Your task to perform on an android device: open app "Speedtest by Ookla" (install if not already installed) Image 0: 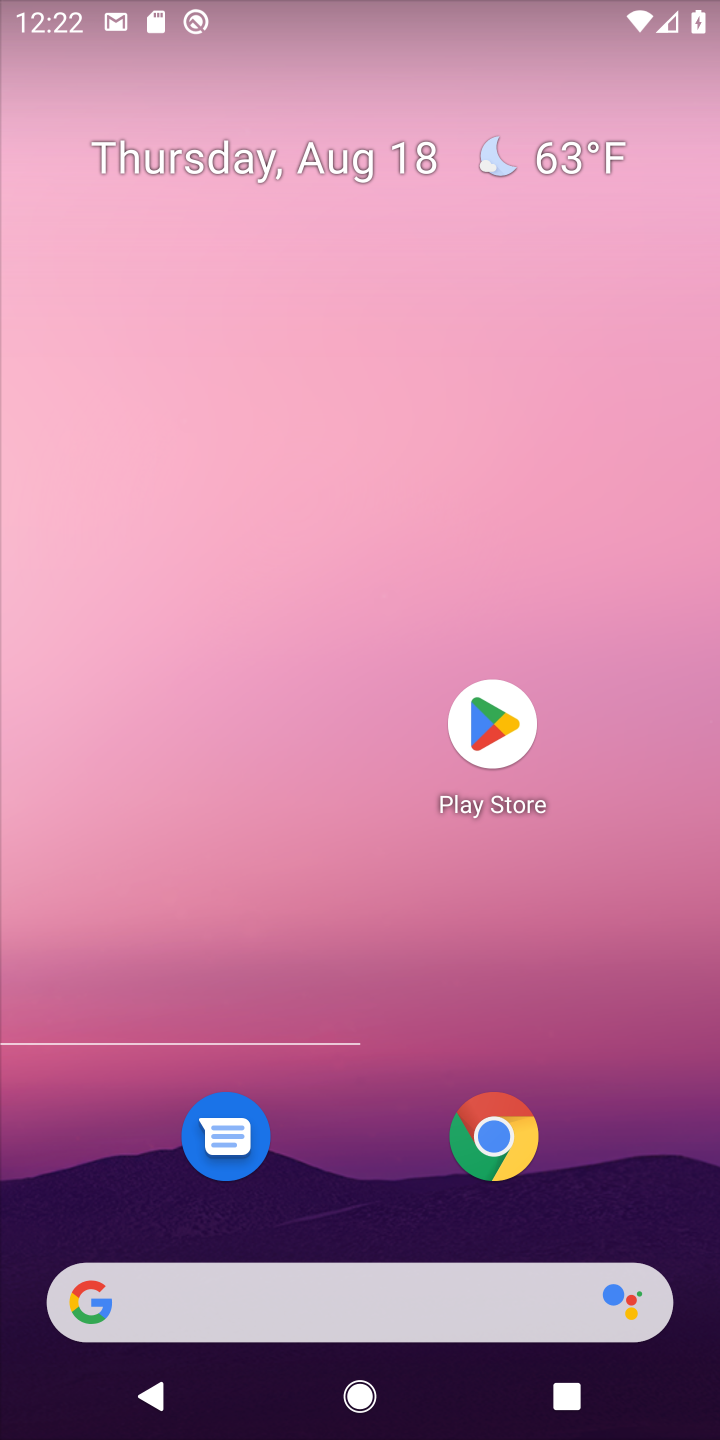
Step 0: press home button
Your task to perform on an android device: open app "Speedtest by Ookla" (install if not already installed) Image 1: 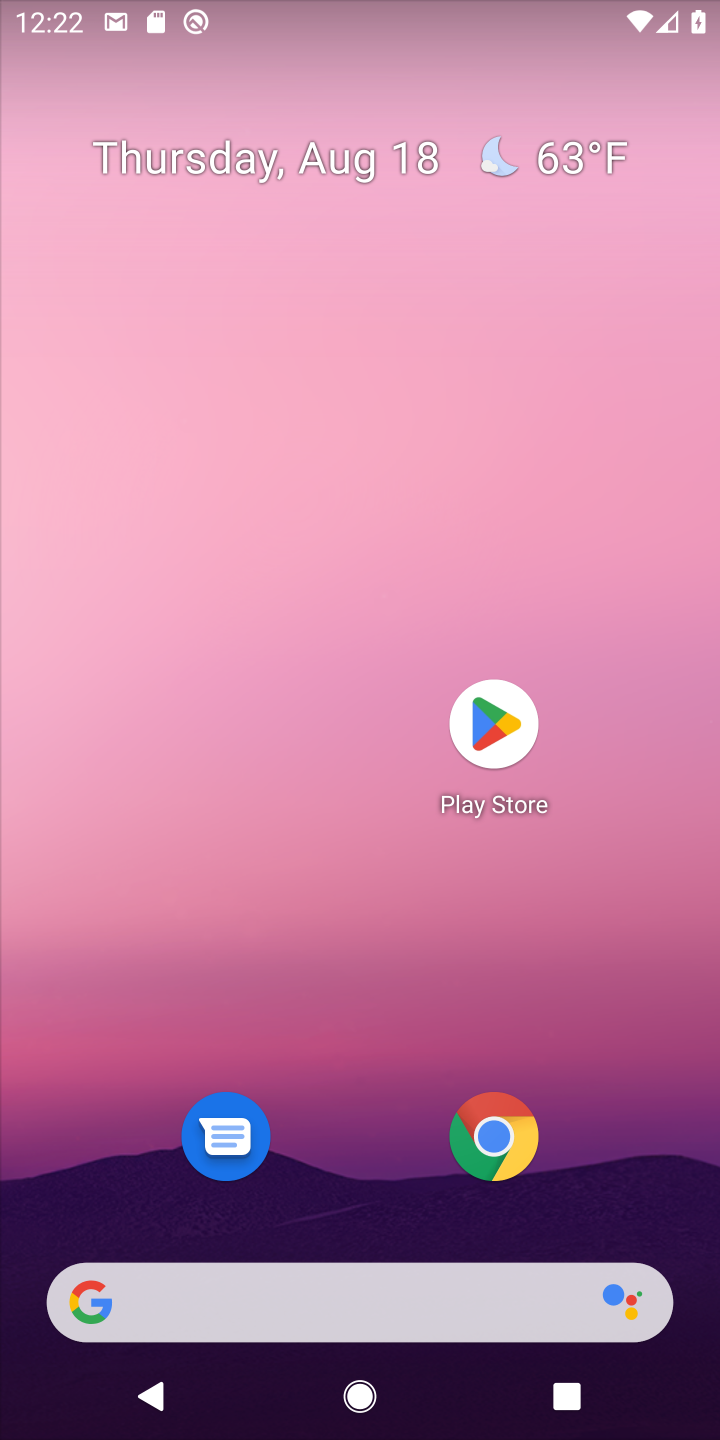
Step 1: press home button
Your task to perform on an android device: open app "Speedtest by Ookla" (install if not already installed) Image 2: 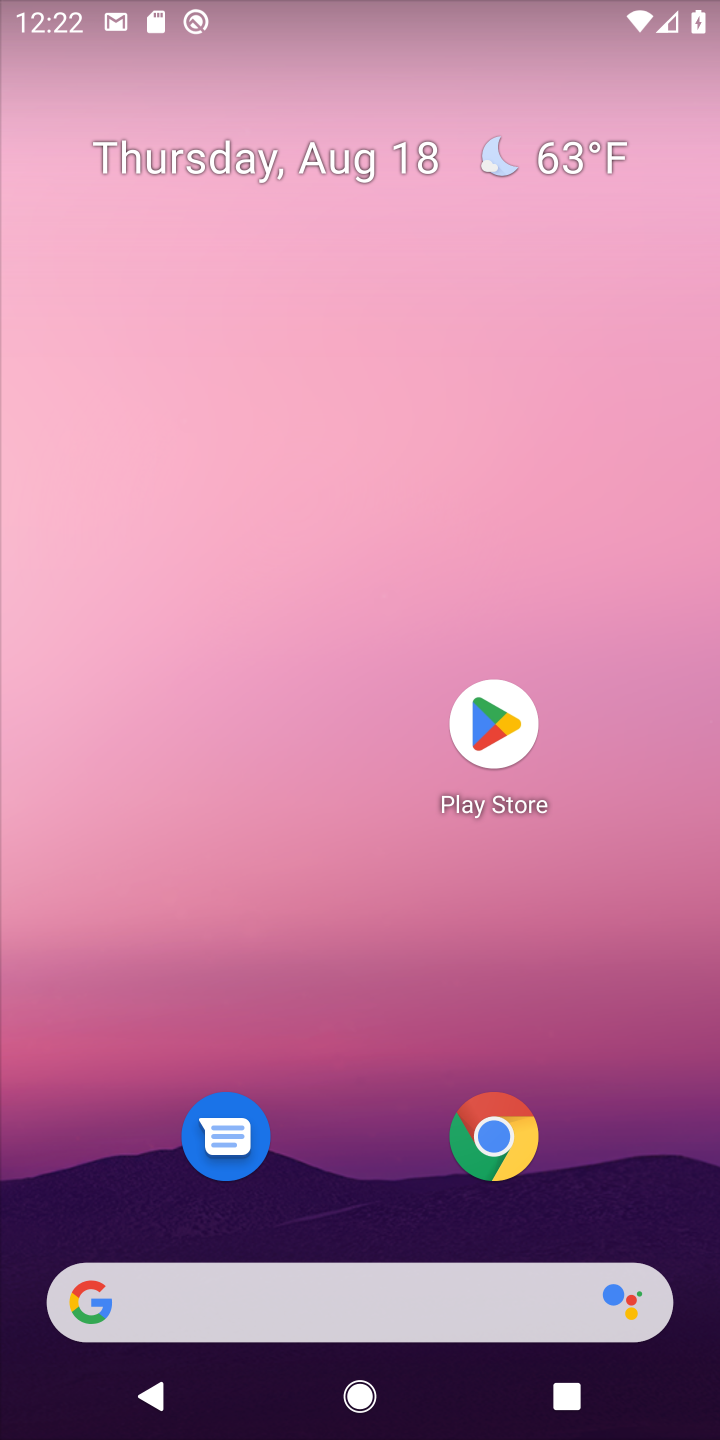
Step 2: click (480, 731)
Your task to perform on an android device: open app "Speedtest by Ookla" (install if not already installed) Image 3: 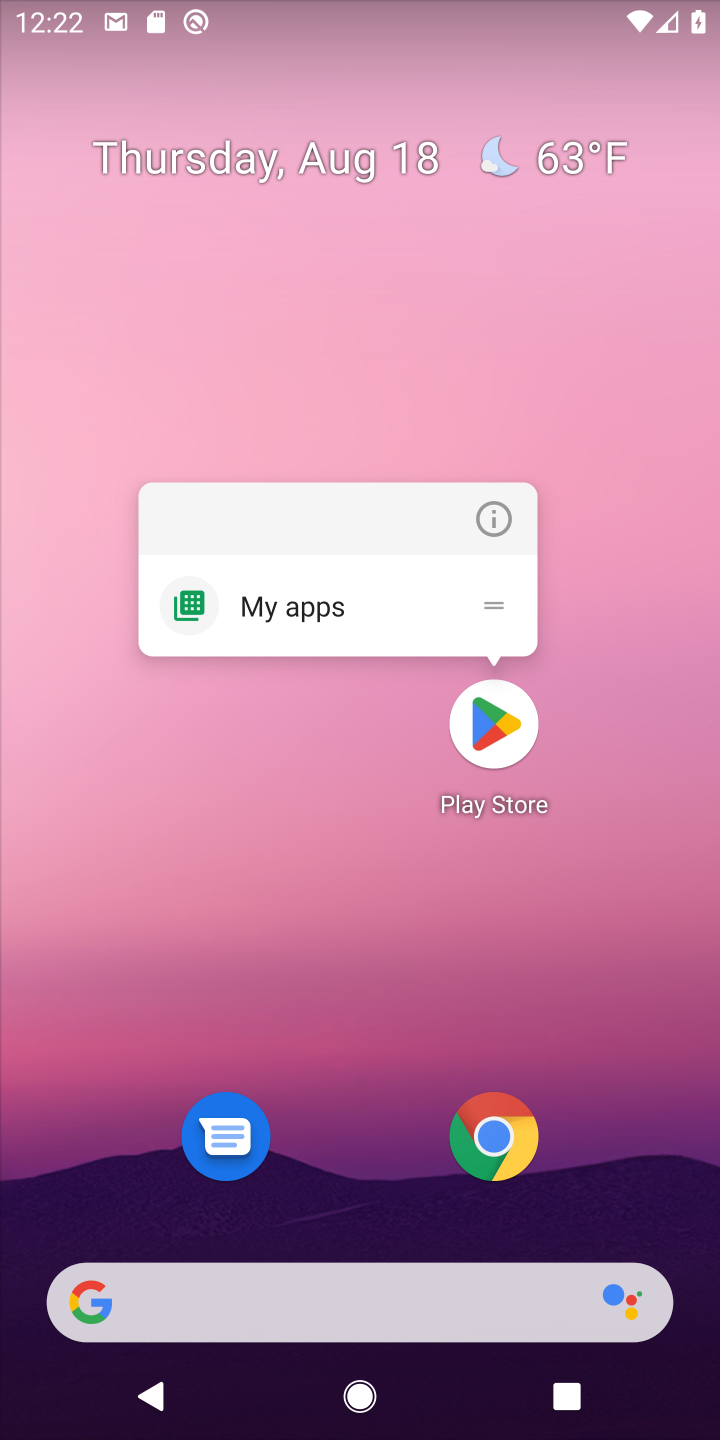
Step 3: click (480, 735)
Your task to perform on an android device: open app "Speedtest by Ookla" (install if not already installed) Image 4: 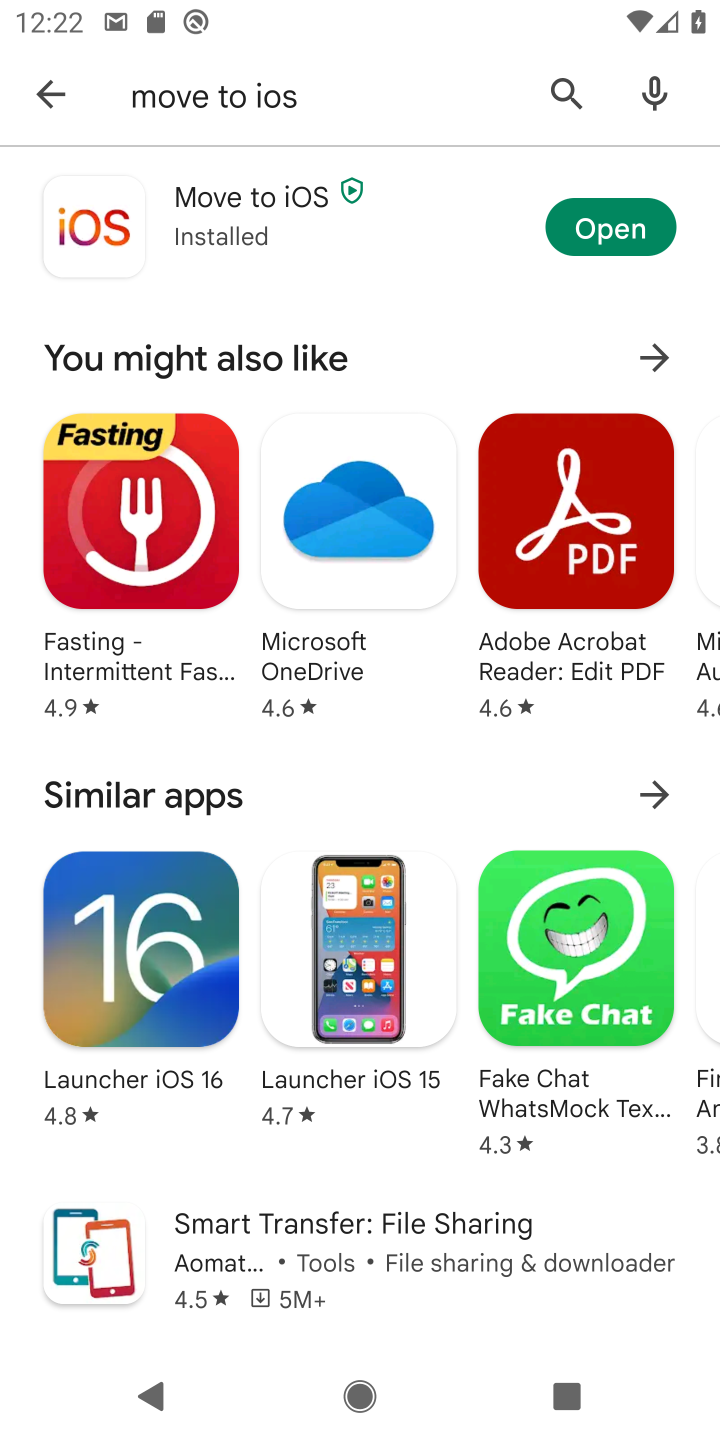
Step 4: click (562, 81)
Your task to perform on an android device: open app "Speedtest by Ookla" (install if not already installed) Image 5: 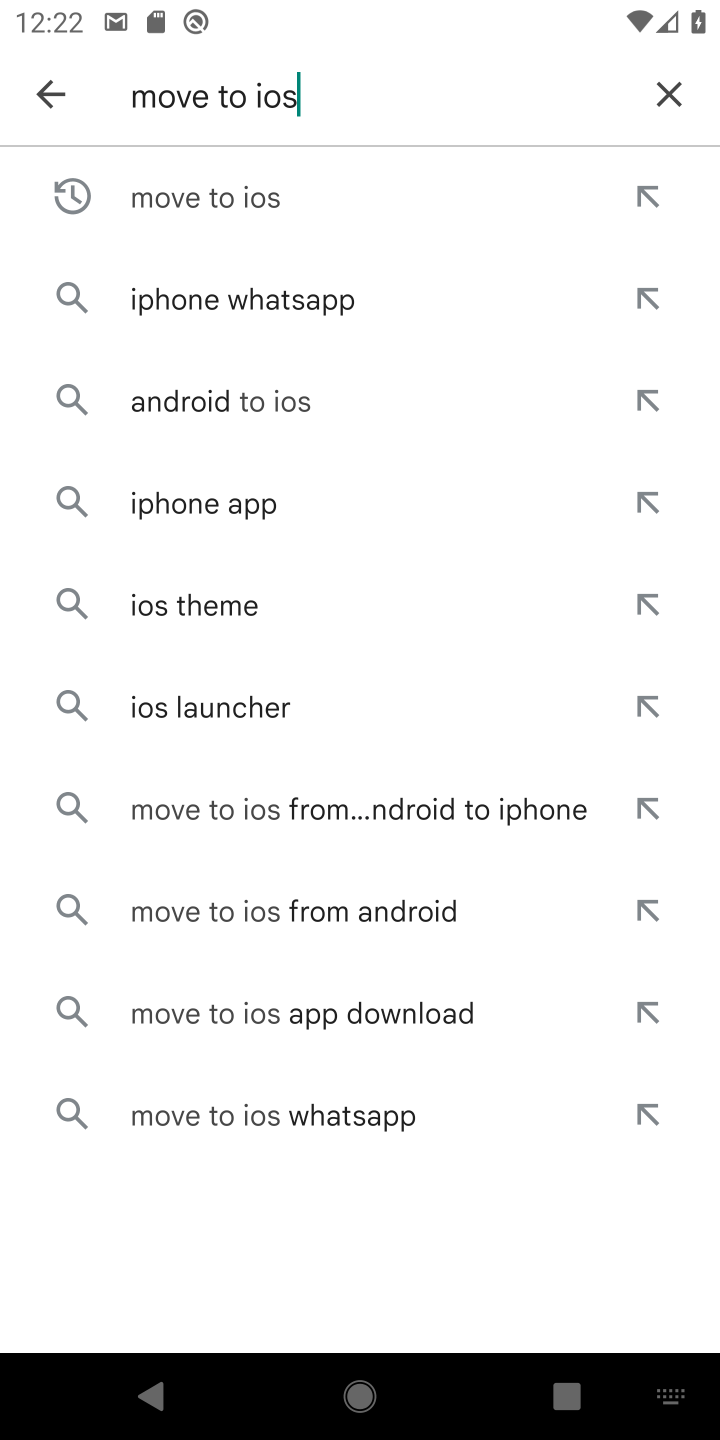
Step 5: click (668, 90)
Your task to perform on an android device: open app "Speedtest by Ookla" (install if not already installed) Image 6: 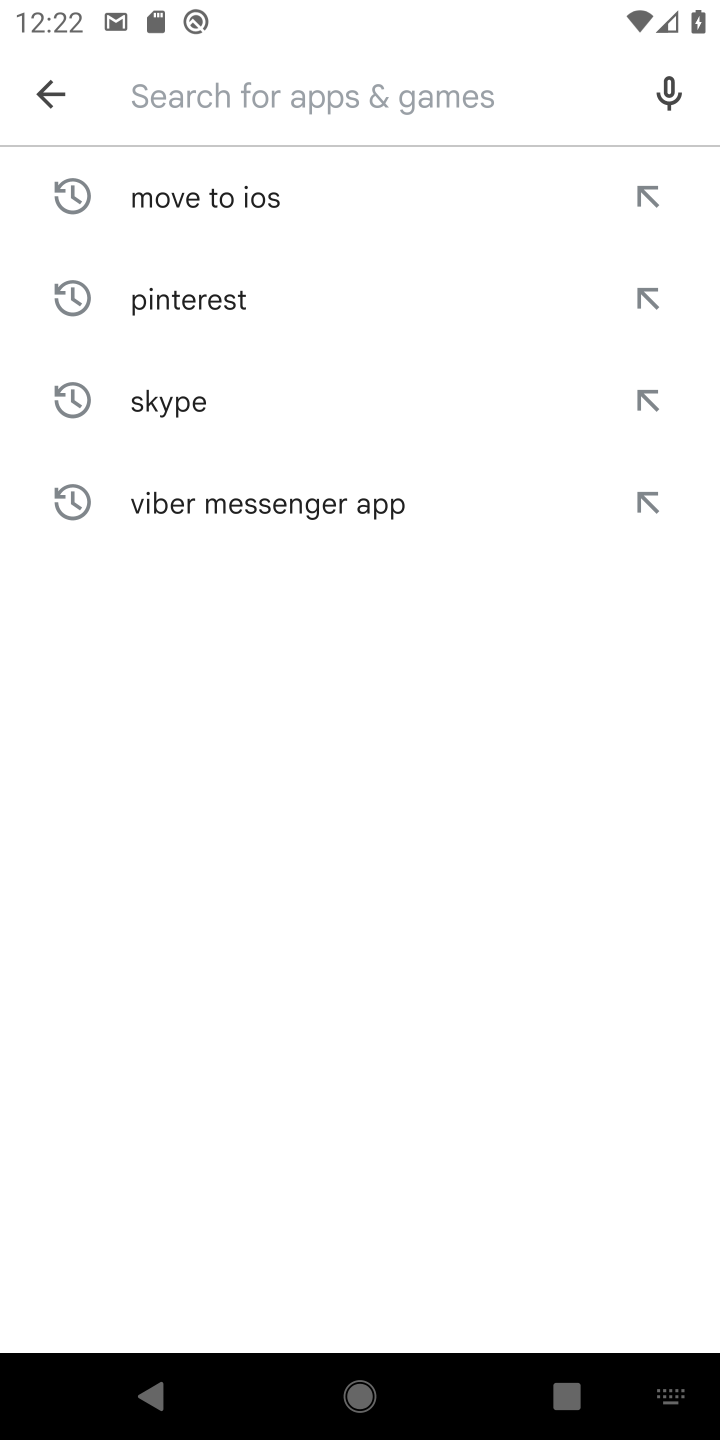
Step 6: type "Speedtest by Ookla"
Your task to perform on an android device: open app "Speedtest by Ookla" (install if not already installed) Image 7: 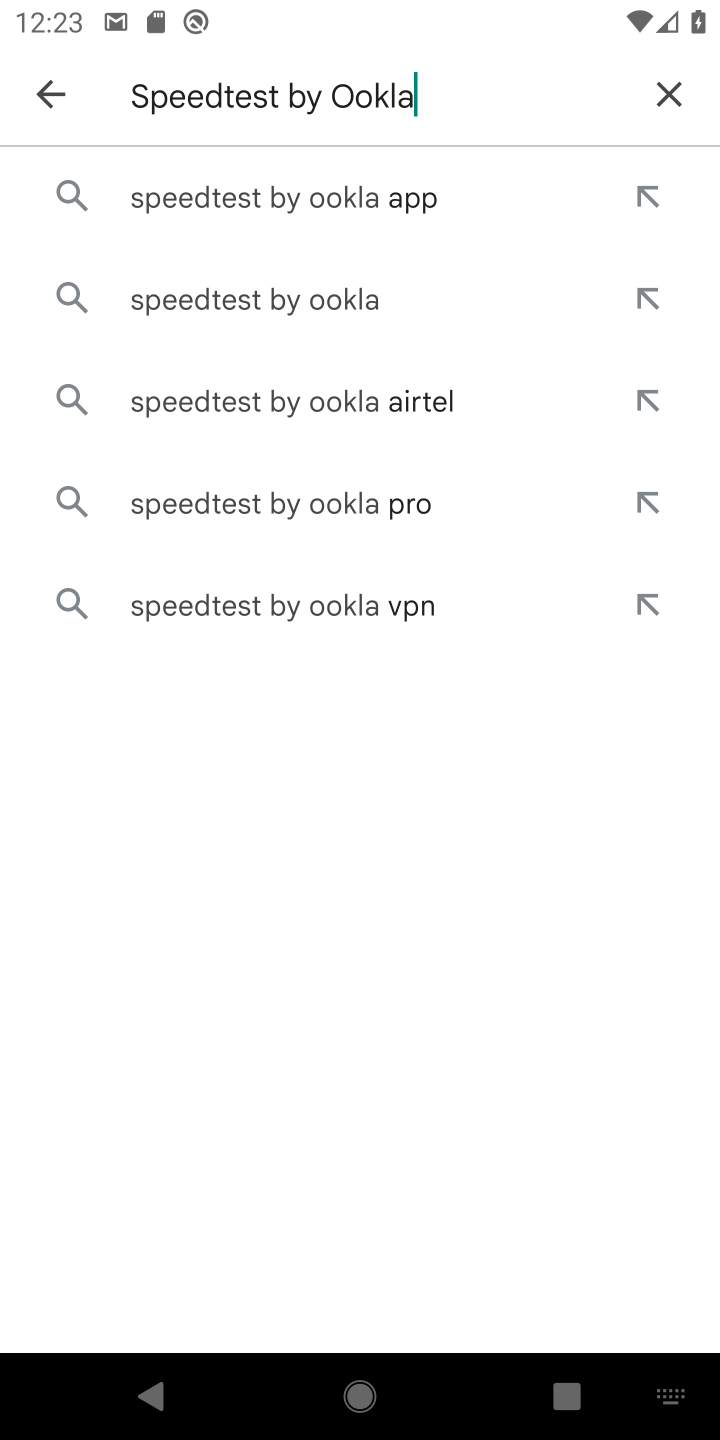
Step 7: click (374, 194)
Your task to perform on an android device: open app "Speedtest by Ookla" (install if not already installed) Image 8: 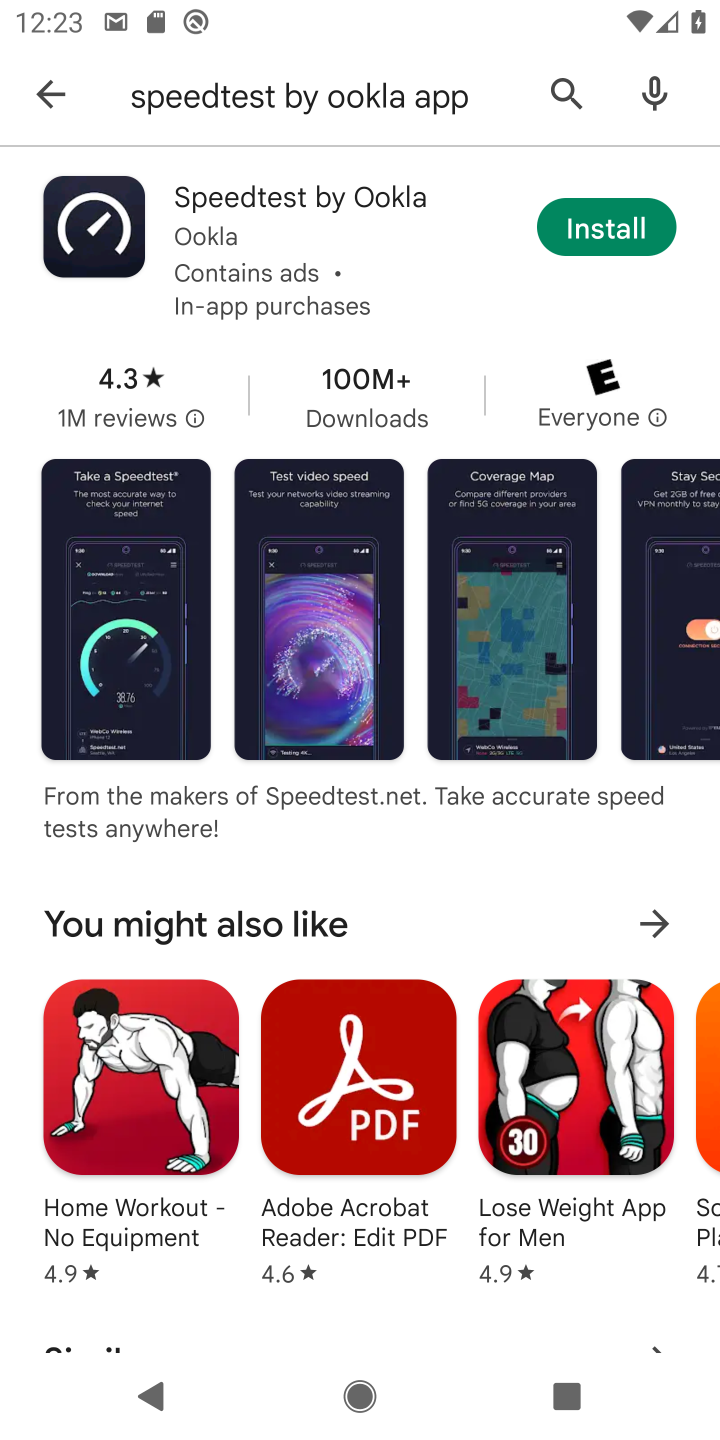
Step 8: click (598, 232)
Your task to perform on an android device: open app "Speedtest by Ookla" (install if not already installed) Image 9: 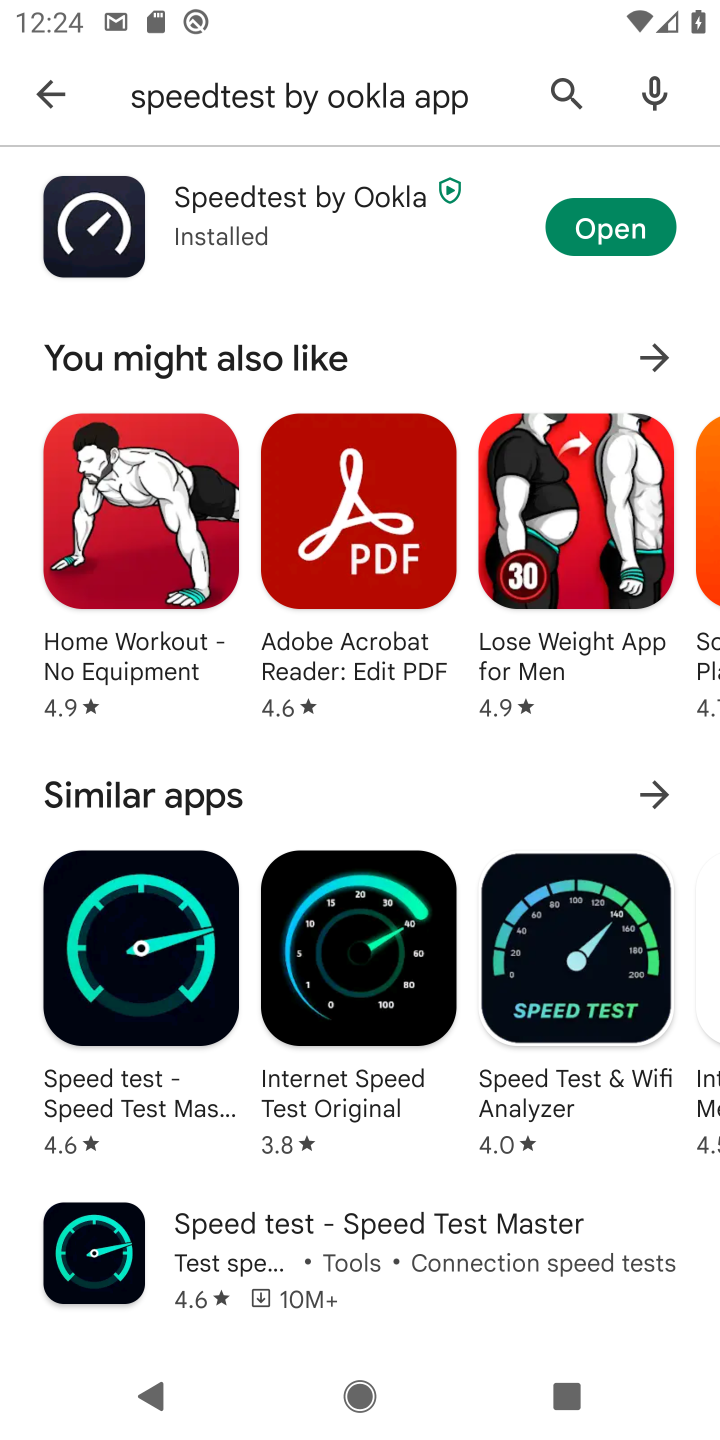
Step 9: click (612, 232)
Your task to perform on an android device: open app "Speedtest by Ookla" (install if not already installed) Image 10: 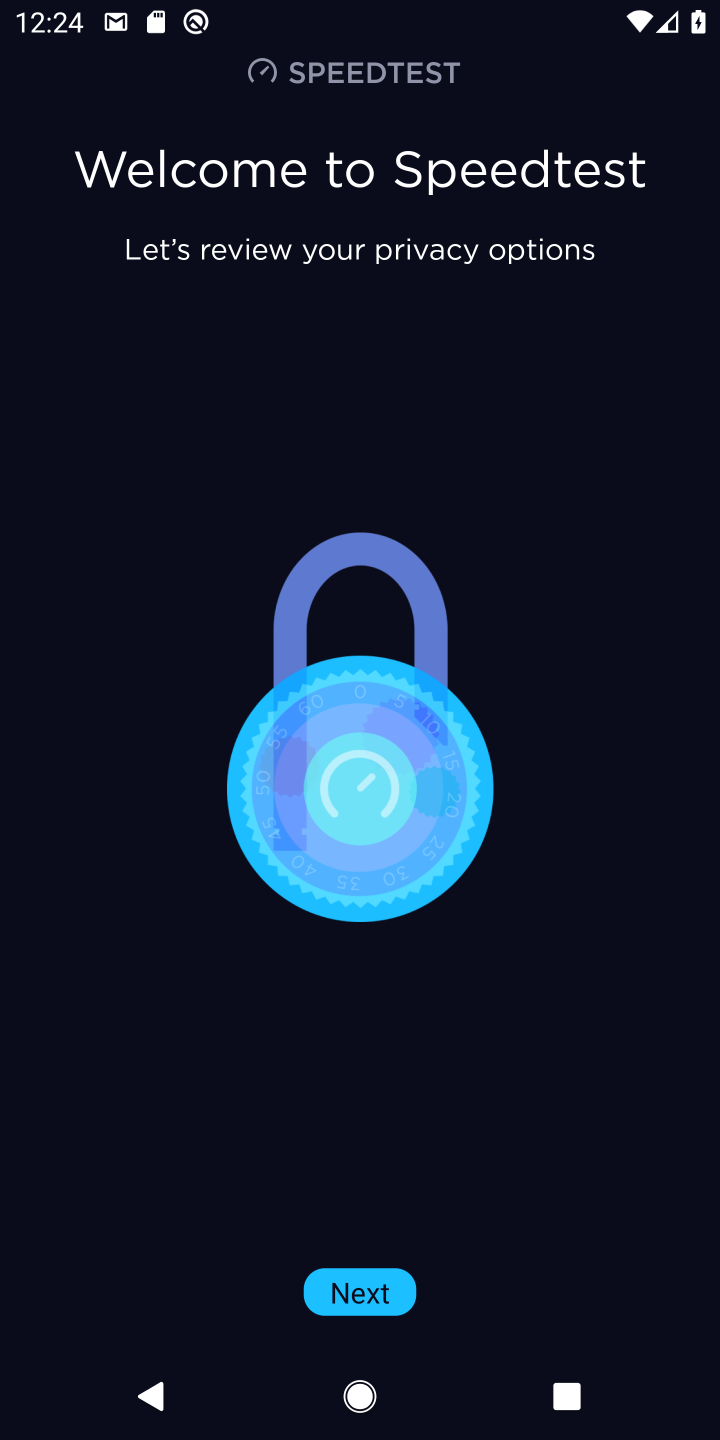
Step 10: task complete